Your task to perform on an android device: View the shopping cart on costco. Add "logitech g502" to the cart on costco Image 0: 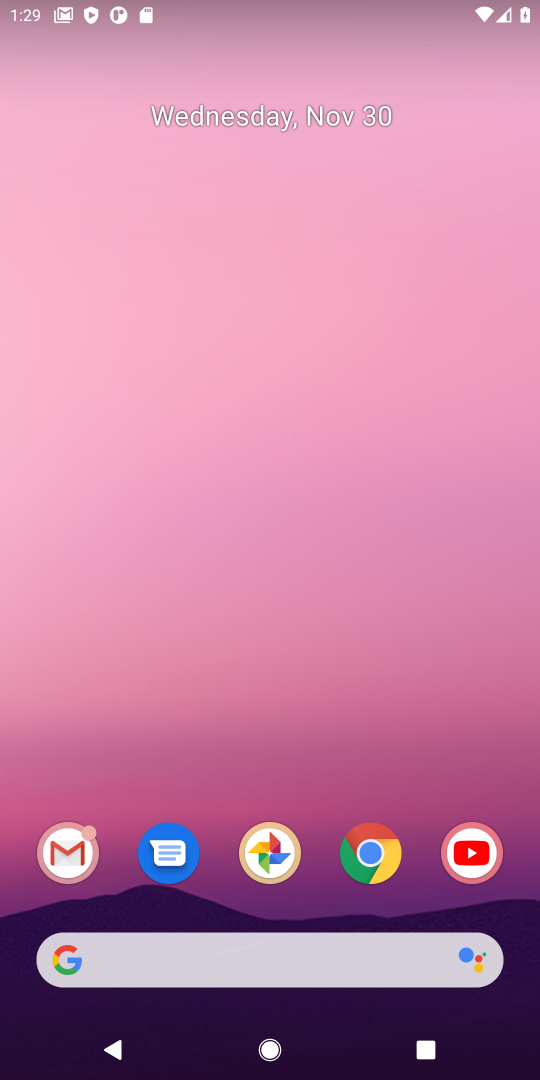
Step 0: click (375, 848)
Your task to perform on an android device: View the shopping cart on costco. Add "logitech g502" to the cart on costco Image 1: 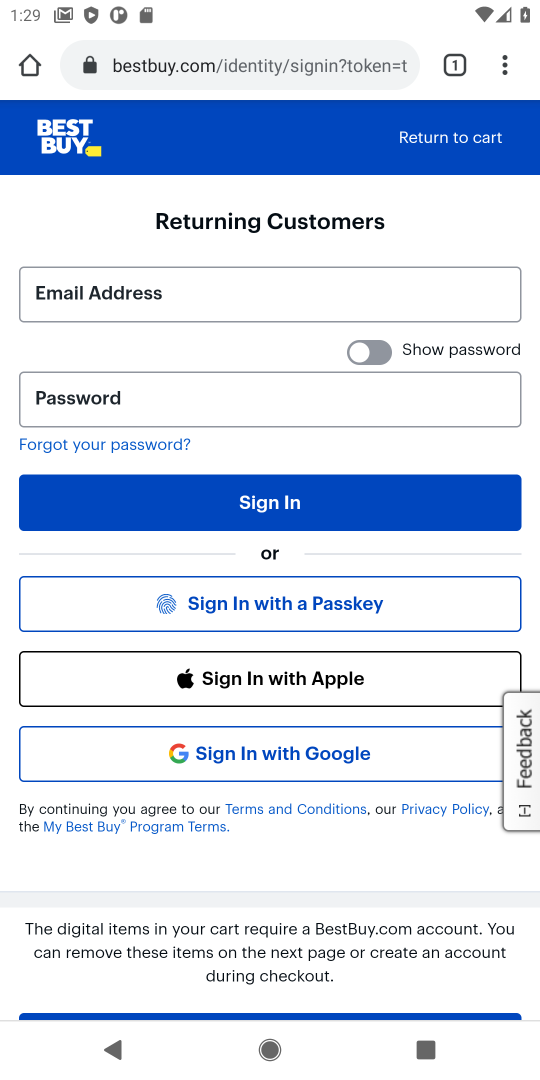
Step 1: click (210, 67)
Your task to perform on an android device: View the shopping cart on costco. Add "logitech g502" to the cart on costco Image 2: 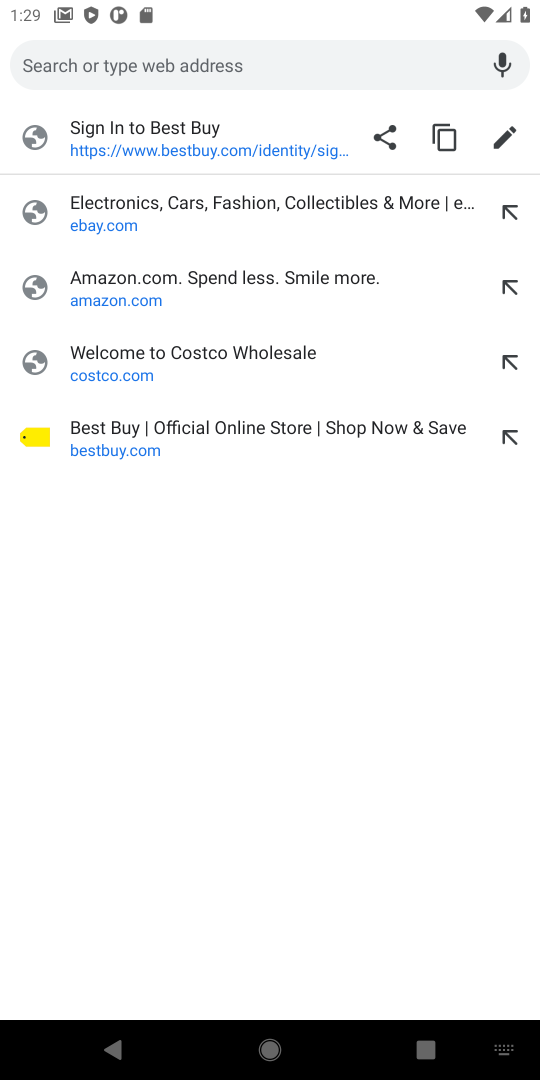
Step 2: click (97, 367)
Your task to perform on an android device: View the shopping cart on costco. Add "logitech g502" to the cart on costco Image 3: 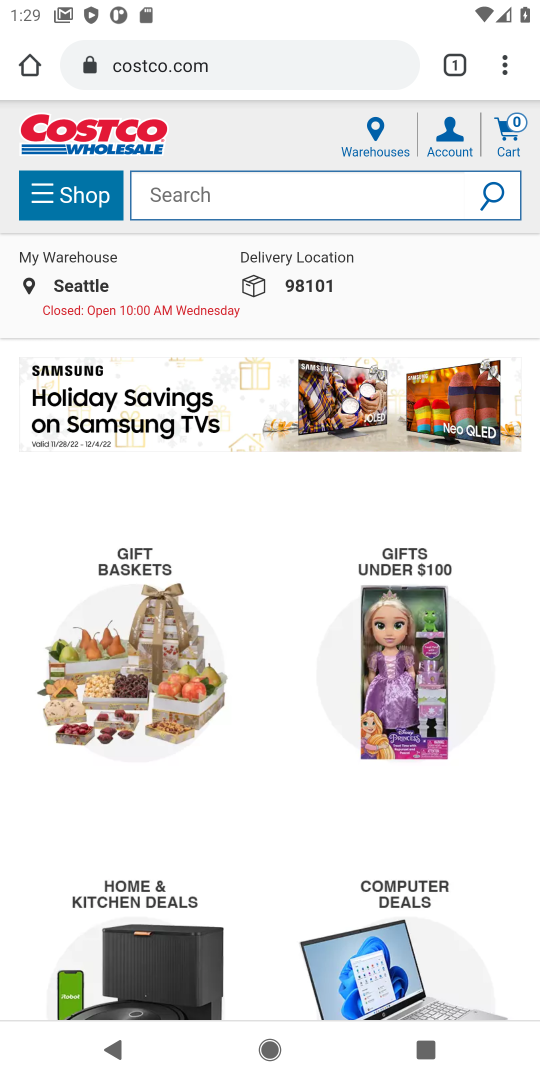
Step 3: click (510, 138)
Your task to perform on an android device: View the shopping cart on costco. Add "logitech g502" to the cart on costco Image 4: 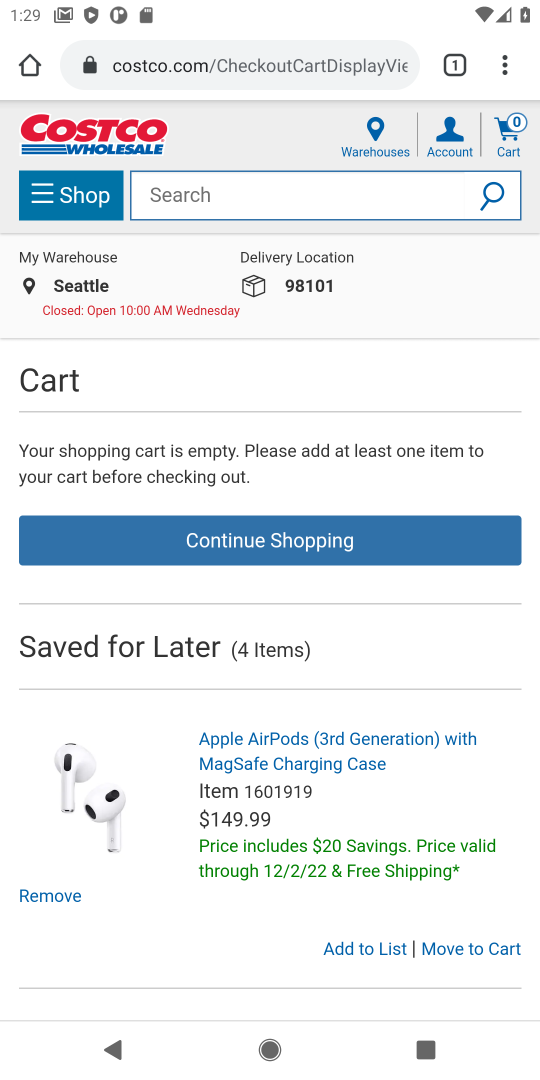
Step 4: click (199, 196)
Your task to perform on an android device: View the shopping cart on costco. Add "logitech g502" to the cart on costco Image 5: 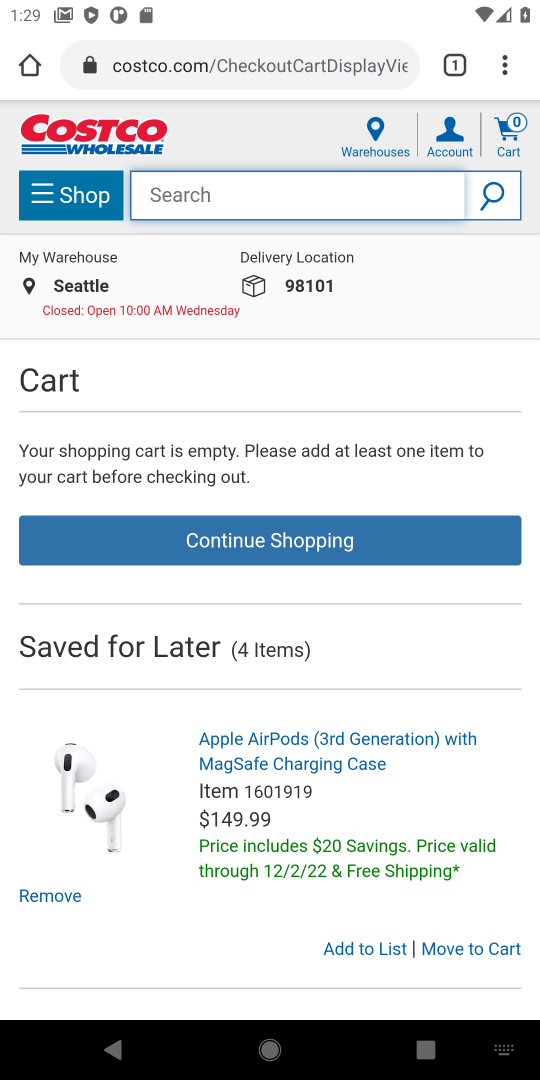
Step 5: type "logitech g502"
Your task to perform on an android device: View the shopping cart on costco. Add "logitech g502" to the cart on costco Image 6: 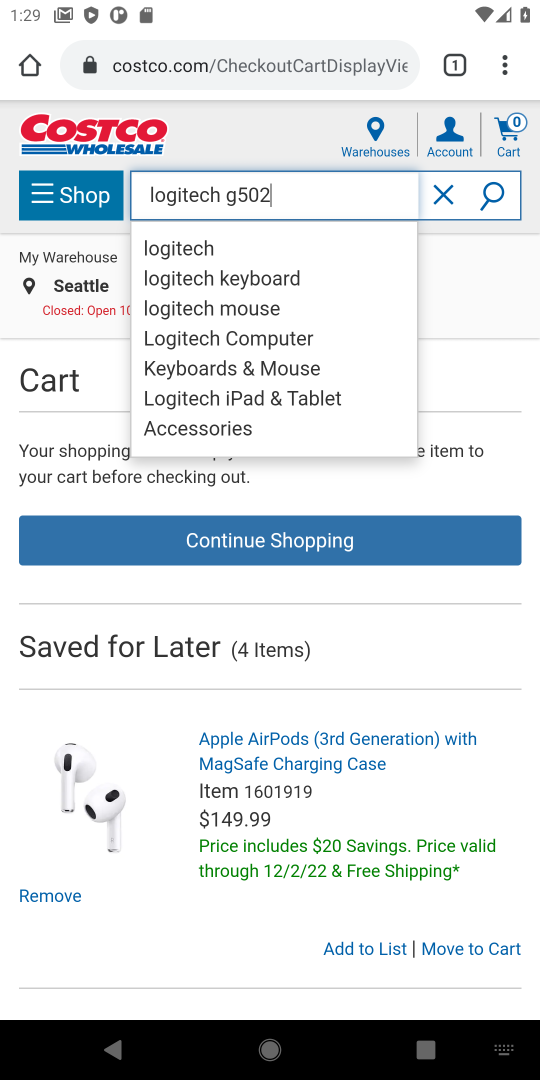
Step 6: click (485, 194)
Your task to perform on an android device: View the shopping cart on costco. Add "logitech g502" to the cart on costco Image 7: 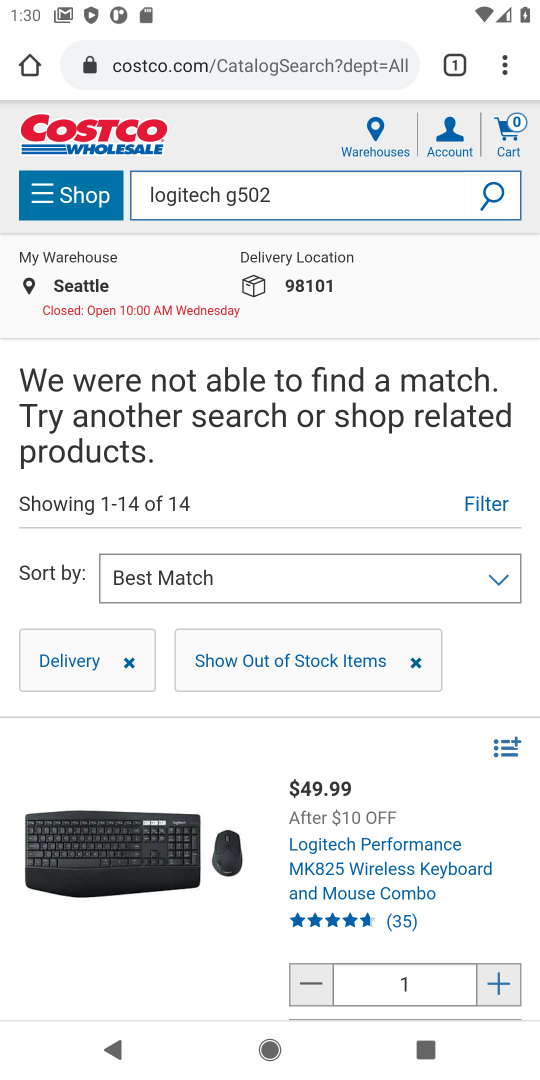
Step 7: task complete